Your task to perform on an android device: star an email in the gmail app Image 0: 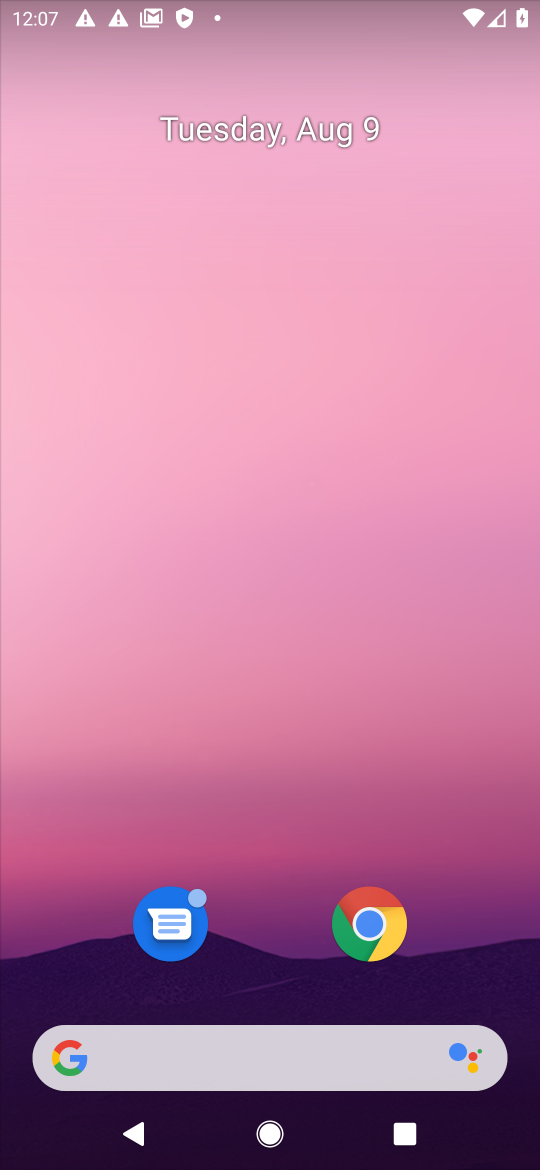
Step 0: drag from (270, 973) to (182, 8)
Your task to perform on an android device: star an email in the gmail app Image 1: 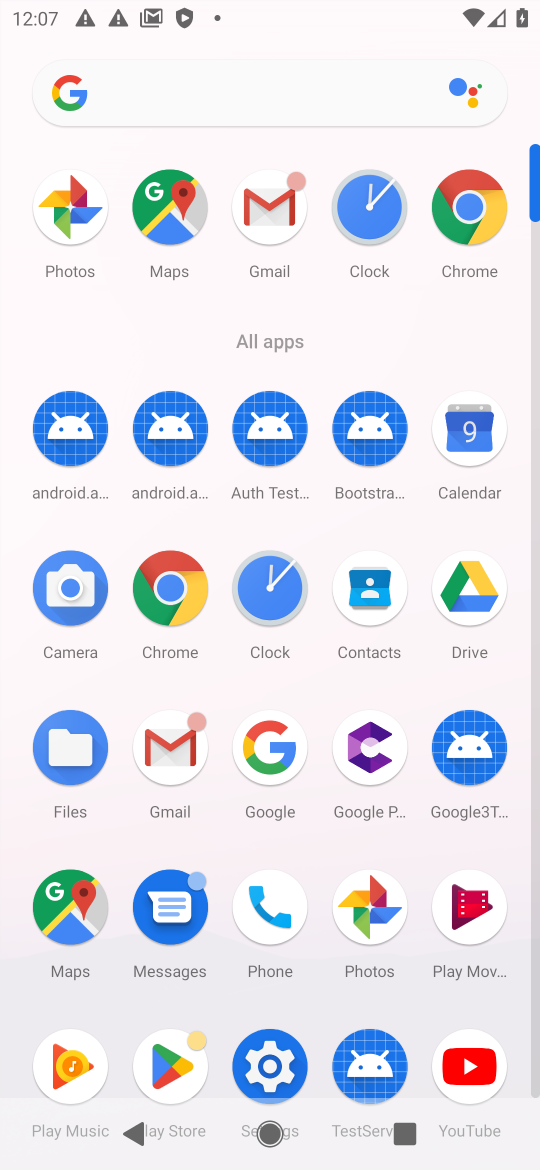
Step 1: click (185, 720)
Your task to perform on an android device: star an email in the gmail app Image 2: 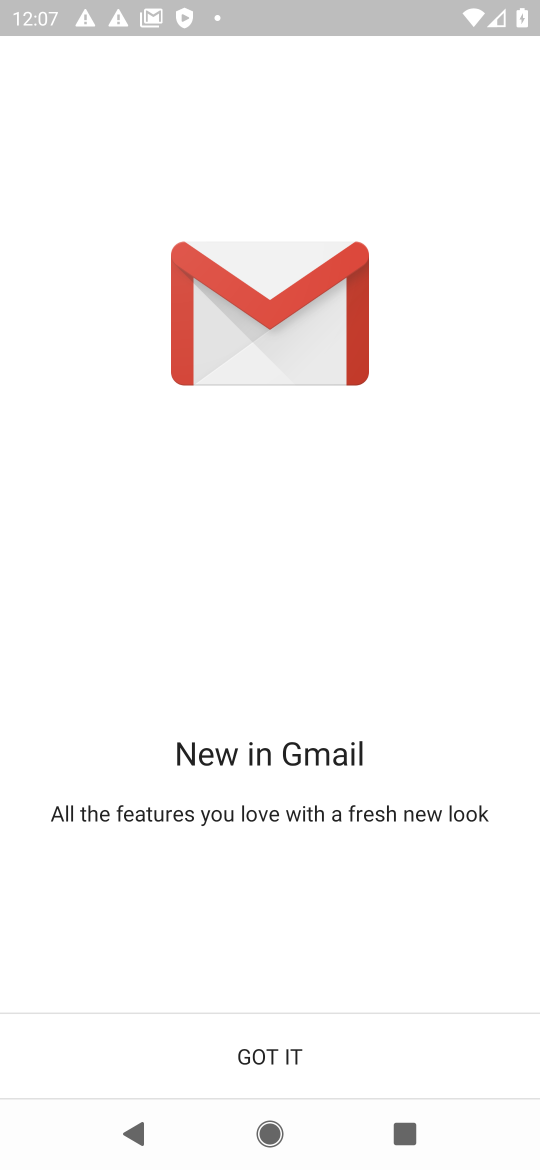
Step 2: click (232, 1072)
Your task to perform on an android device: star an email in the gmail app Image 3: 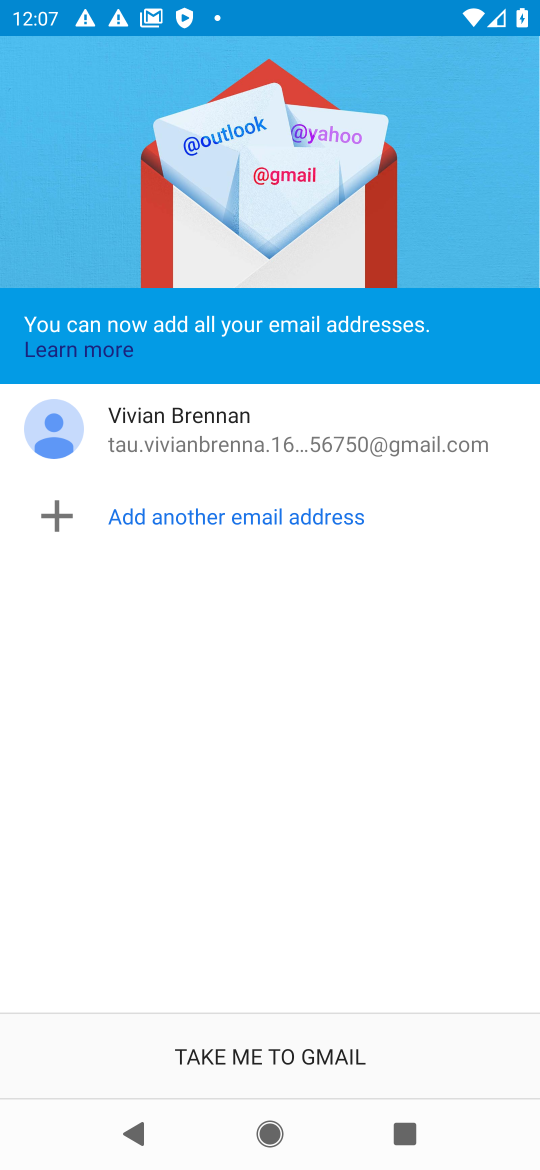
Step 3: click (372, 1056)
Your task to perform on an android device: star an email in the gmail app Image 4: 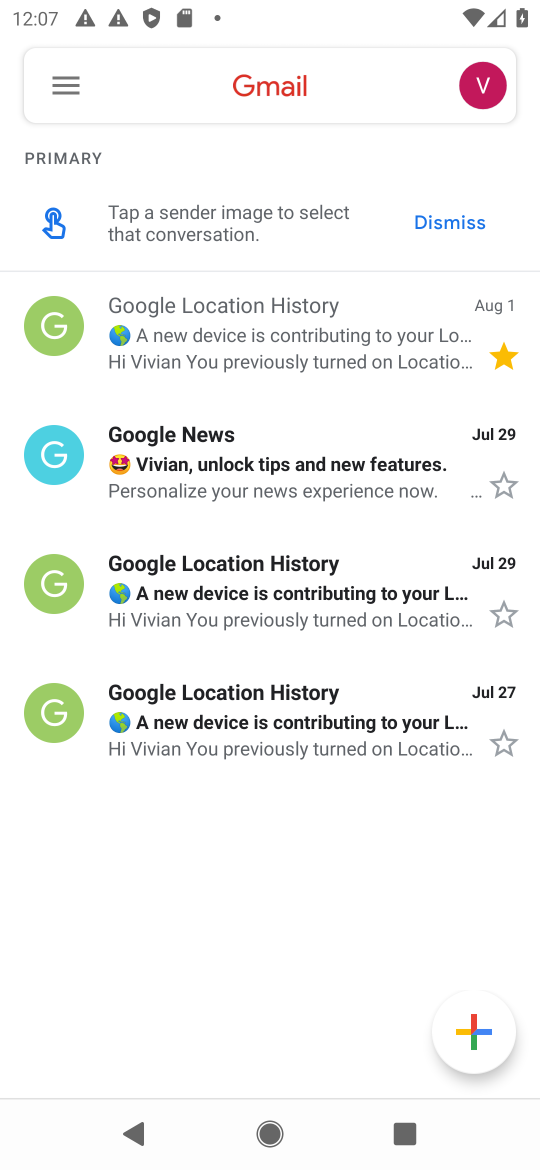
Step 4: click (77, 95)
Your task to perform on an android device: star an email in the gmail app Image 5: 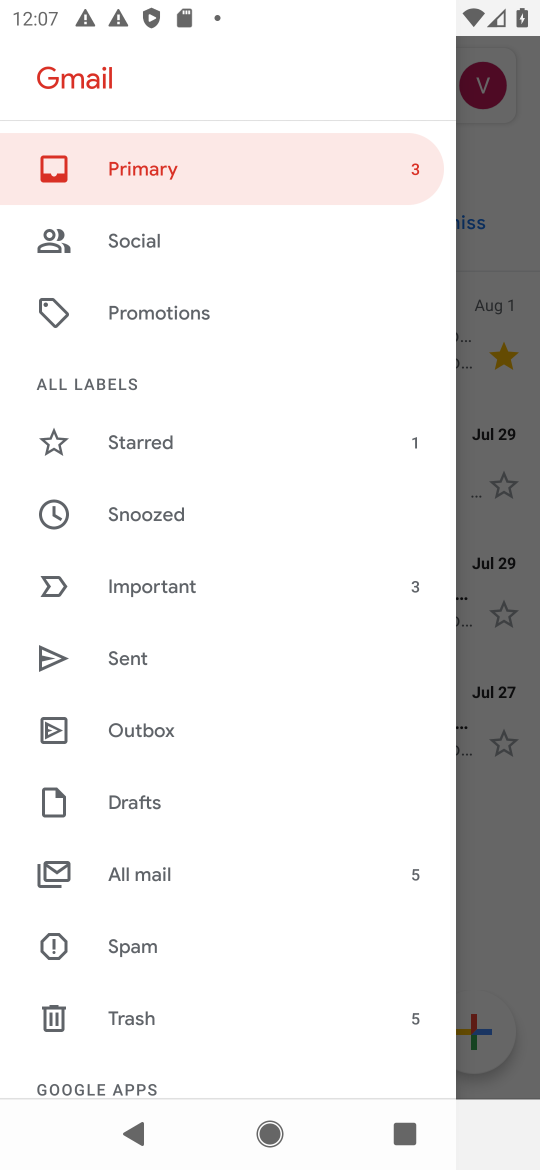
Step 5: click (133, 433)
Your task to perform on an android device: star an email in the gmail app Image 6: 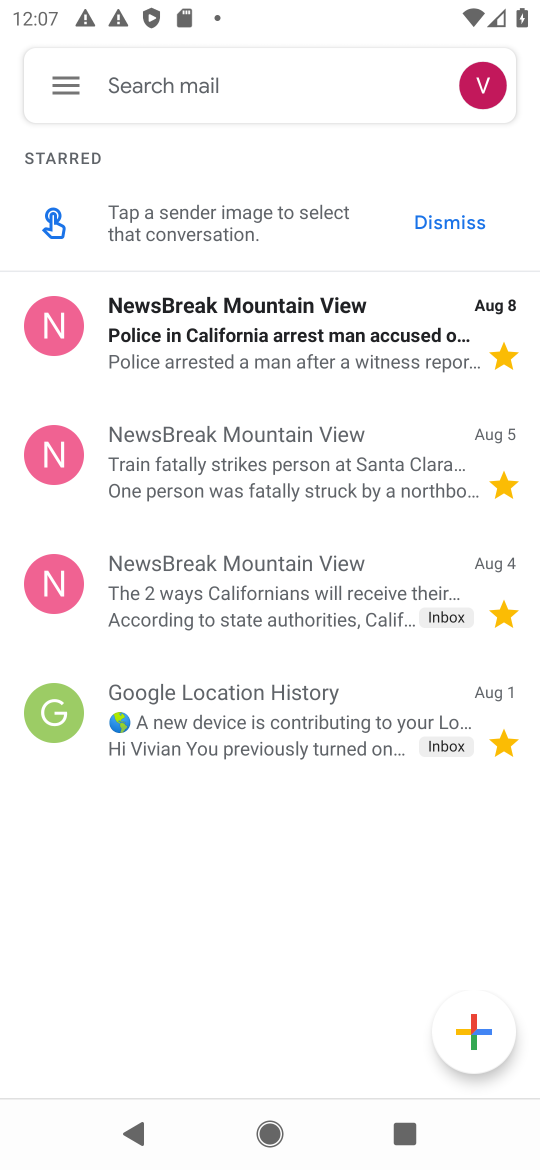
Step 6: task complete